Your task to perform on an android device: Go to wifi settings Image 0: 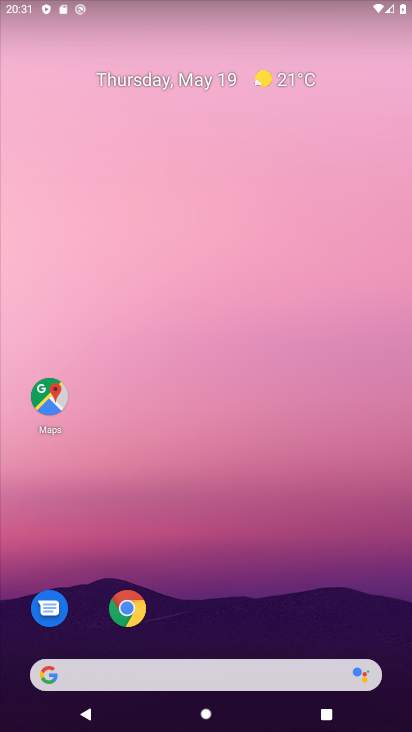
Step 0: click (169, 91)
Your task to perform on an android device: Go to wifi settings Image 1: 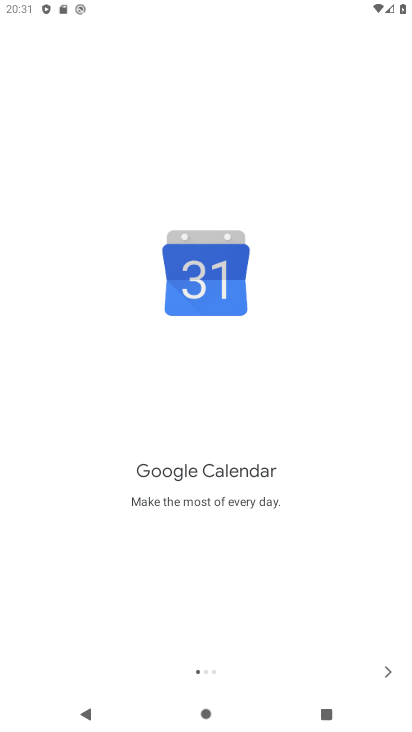
Step 1: press home button
Your task to perform on an android device: Go to wifi settings Image 2: 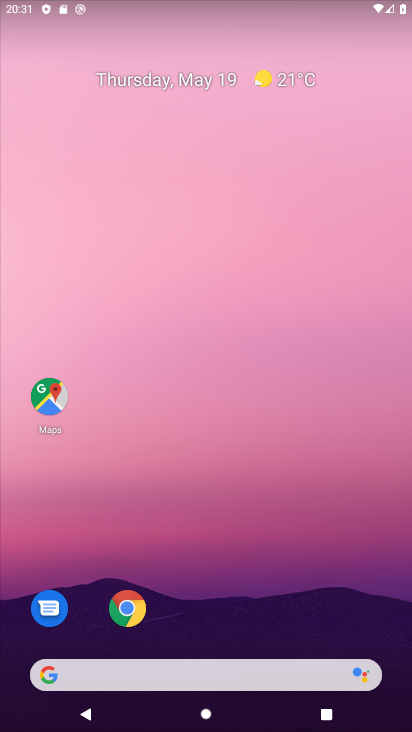
Step 2: drag from (205, 519) to (184, 33)
Your task to perform on an android device: Go to wifi settings Image 3: 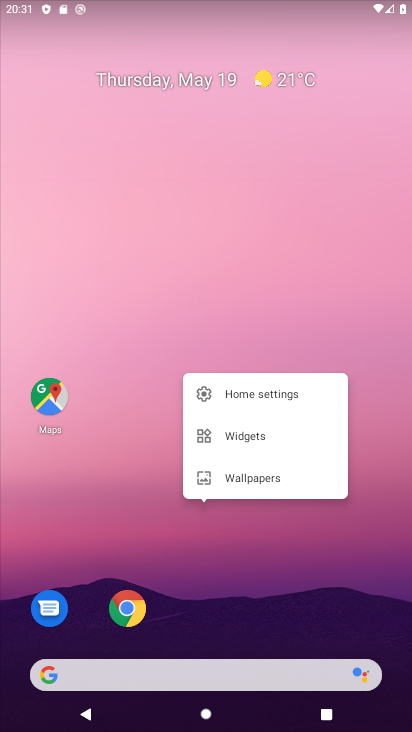
Step 3: click (243, 526)
Your task to perform on an android device: Go to wifi settings Image 4: 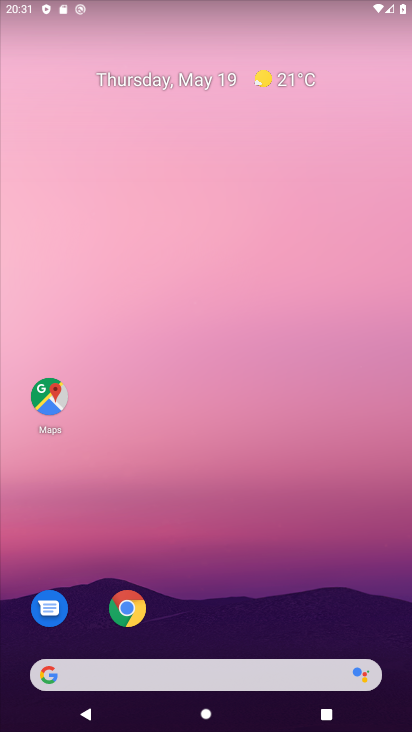
Step 4: drag from (222, 526) to (184, 118)
Your task to perform on an android device: Go to wifi settings Image 5: 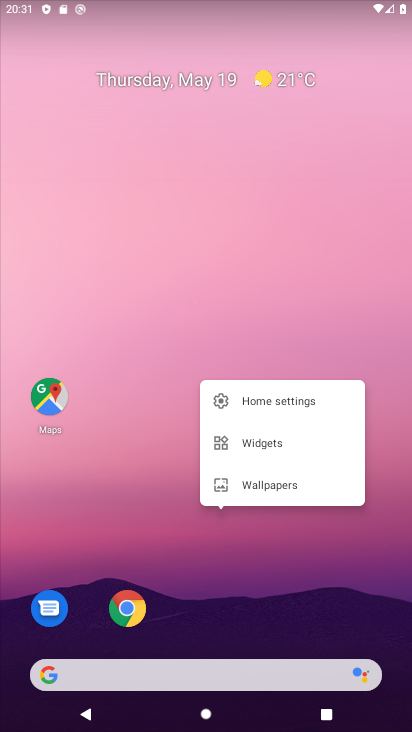
Step 5: click (147, 458)
Your task to perform on an android device: Go to wifi settings Image 6: 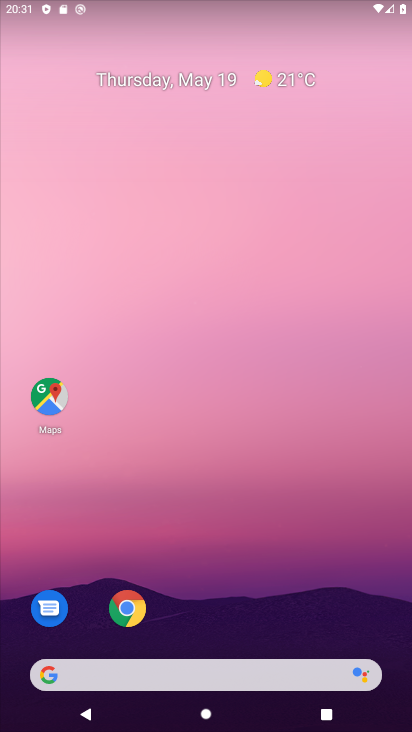
Step 6: drag from (246, 518) to (195, 32)
Your task to perform on an android device: Go to wifi settings Image 7: 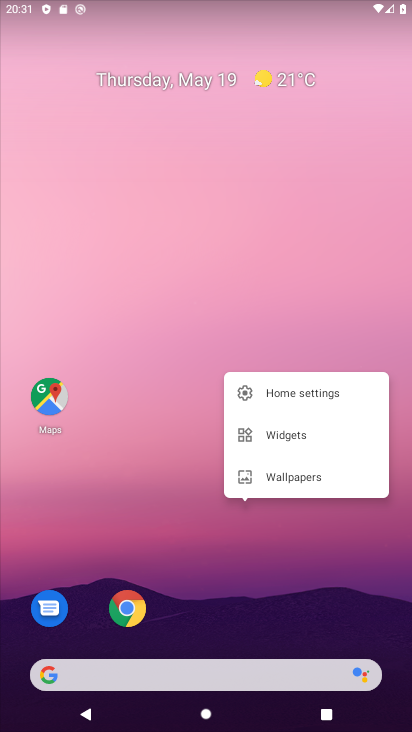
Step 7: click (167, 326)
Your task to perform on an android device: Go to wifi settings Image 8: 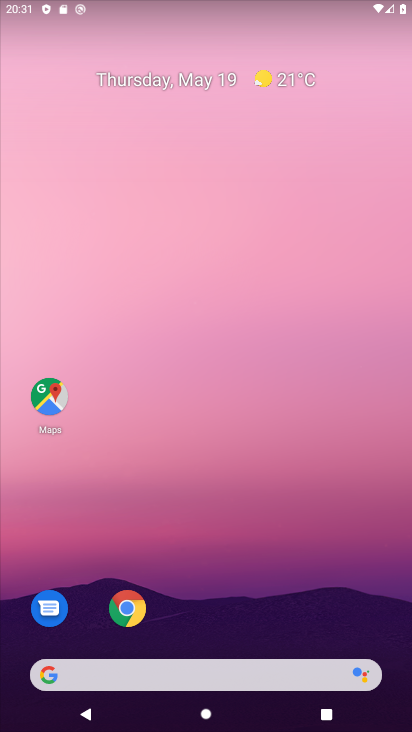
Step 8: drag from (247, 630) to (247, 89)
Your task to perform on an android device: Go to wifi settings Image 9: 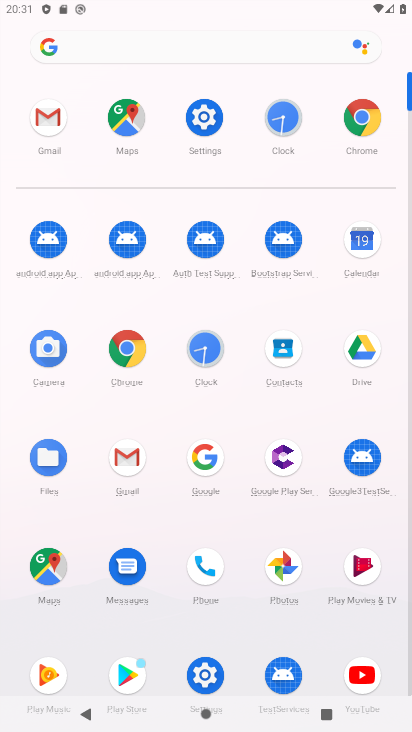
Step 9: click (205, 122)
Your task to perform on an android device: Go to wifi settings Image 10: 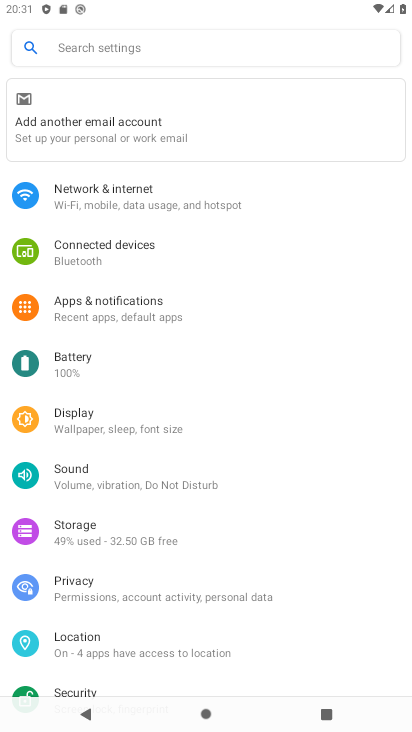
Step 10: click (107, 191)
Your task to perform on an android device: Go to wifi settings Image 11: 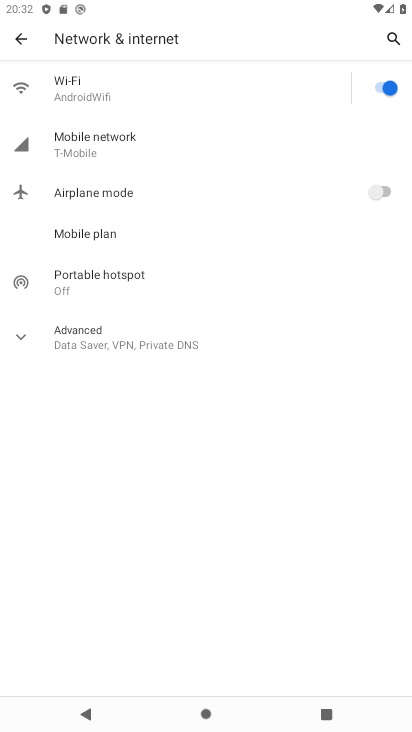
Step 11: click (97, 94)
Your task to perform on an android device: Go to wifi settings Image 12: 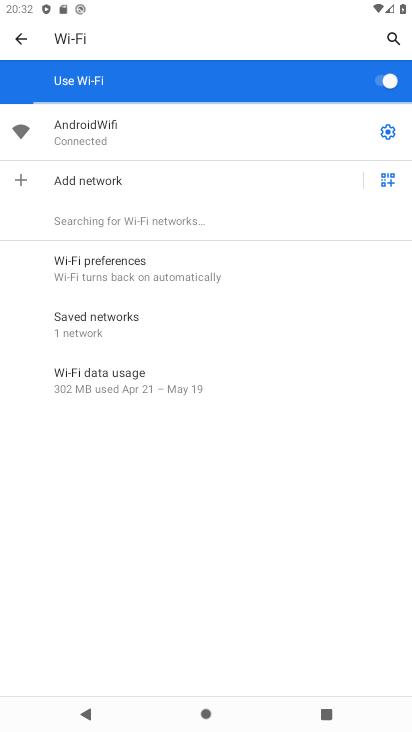
Step 12: task complete